Your task to perform on an android device: Add beats solo 3 to the cart on amazon.com Image 0: 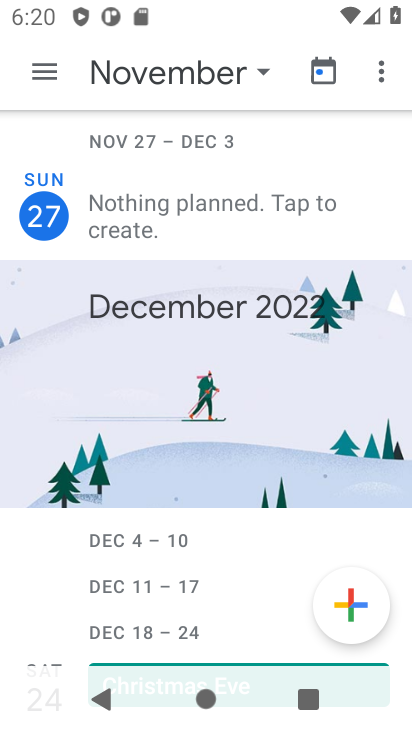
Step 0: press home button
Your task to perform on an android device: Add beats solo 3 to the cart on amazon.com Image 1: 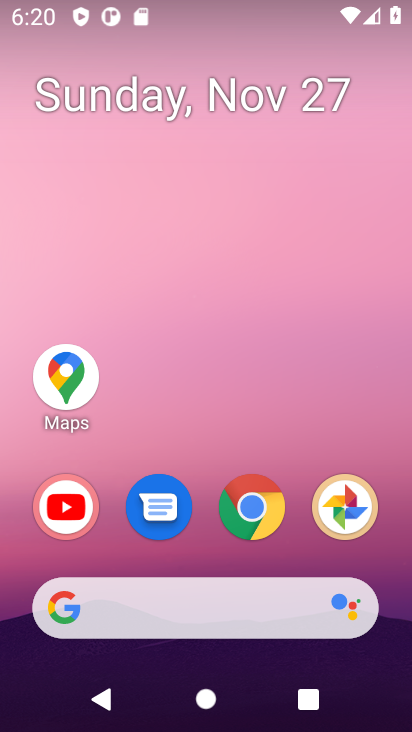
Step 1: click (250, 499)
Your task to perform on an android device: Add beats solo 3 to the cart on amazon.com Image 2: 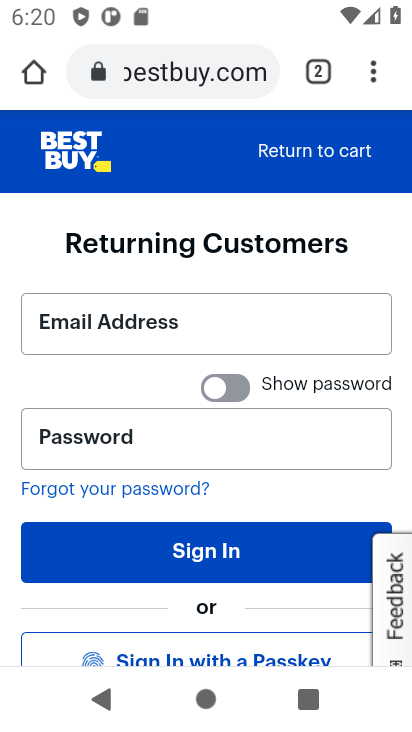
Step 2: click (182, 70)
Your task to perform on an android device: Add beats solo 3 to the cart on amazon.com Image 3: 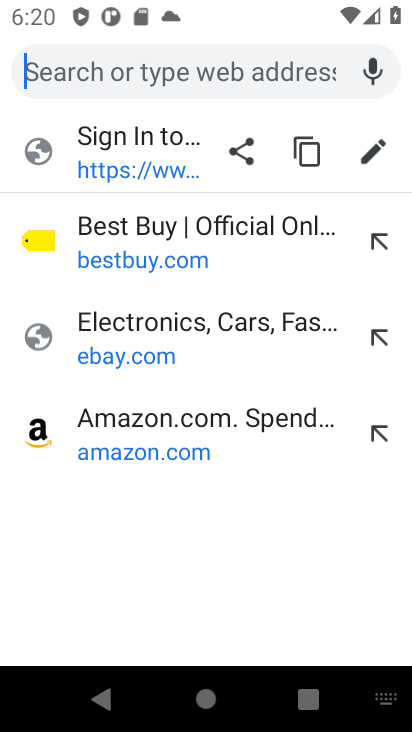
Step 3: type "amazon.com"
Your task to perform on an android device: Add beats solo 3 to the cart on amazon.com Image 4: 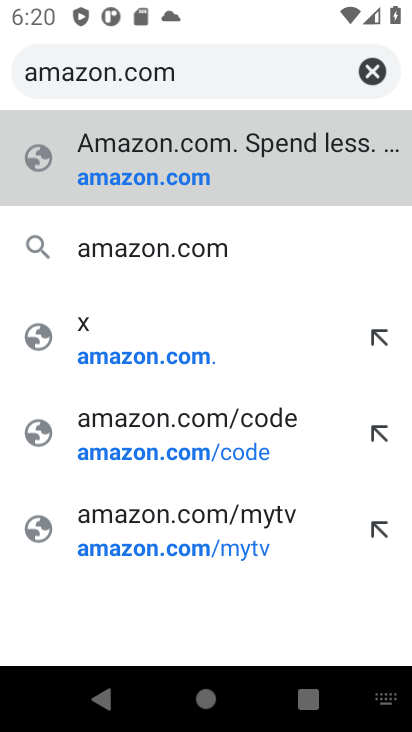
Step 4: click (214, 150)
Your task to perform on an android device: Add beats solo 3 to the cart on amazon.com Image 5: 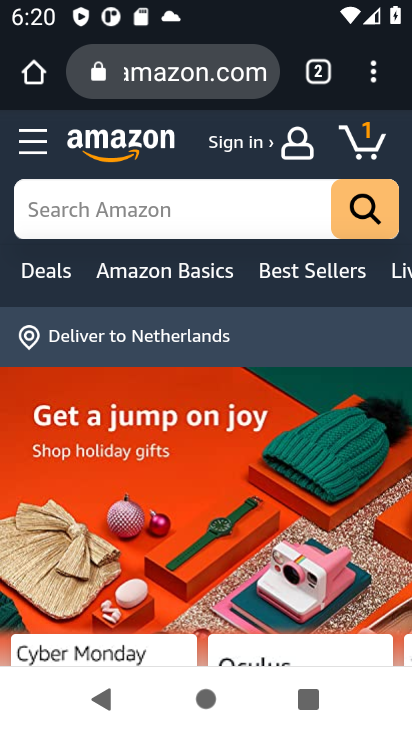
Step 5: click (176, 197)
Your task to perform on an android device: Add beats solo 3 to the cart on amazon.com Image 6: 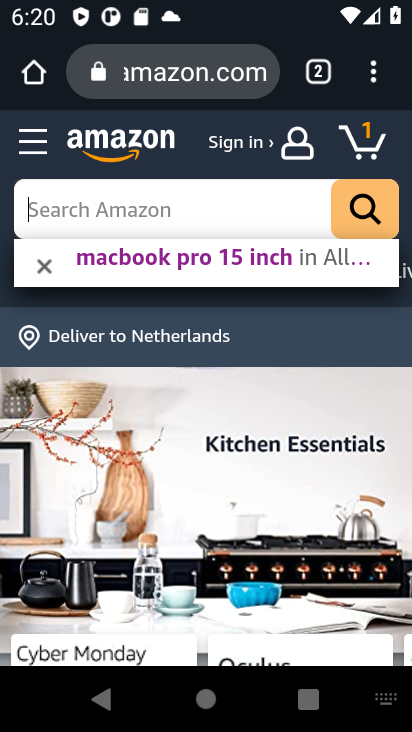
Step 6: type "beats solo 3"
Your task to perform on an android device: Add beats solo 3 to the cart on amazon.com Image 7: 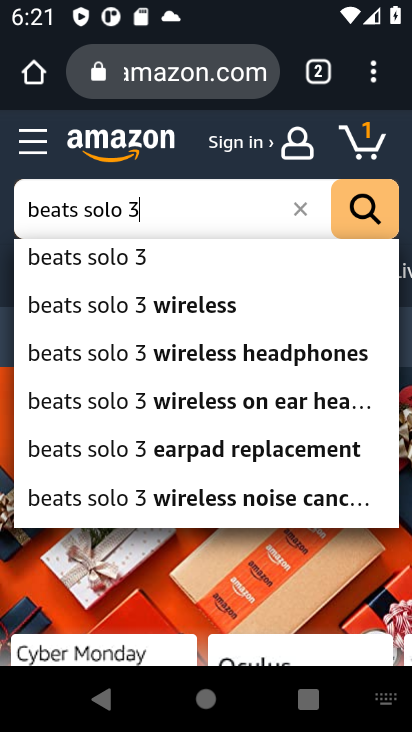
Step 7: click (366, 216)
Your task to perform on an android device: Add beats solo 3 to the cart on amazon.com Image 8: 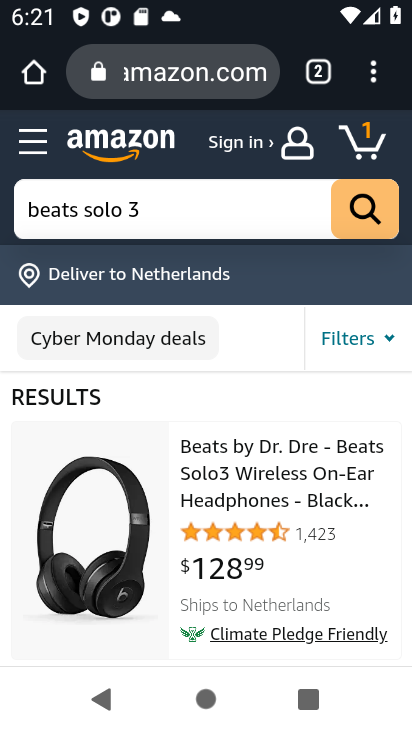
Step 8: click (315, 483)
Your task to perform on an android device: Add beats solo 3 to the cart on amazon.com Image 9: 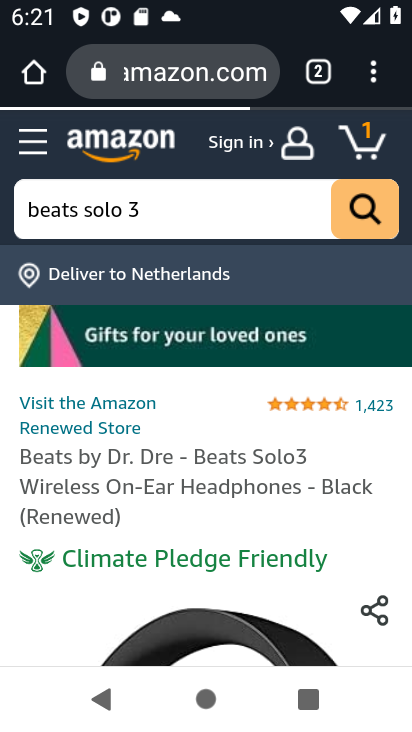
Step 9: drag from (268, 583) to (245, 243)
Your task to perform on an android device: Add beats solo 3 to the cart on amazon.com Image 10: 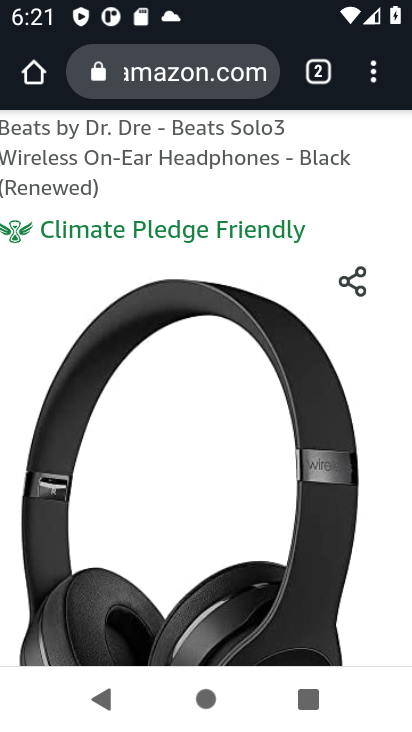
Step 10: drag from (195, 554) to (190, 153)
Your task to perform on an android device: Add beats solo 3 to the cart on amazon.com Image 11: 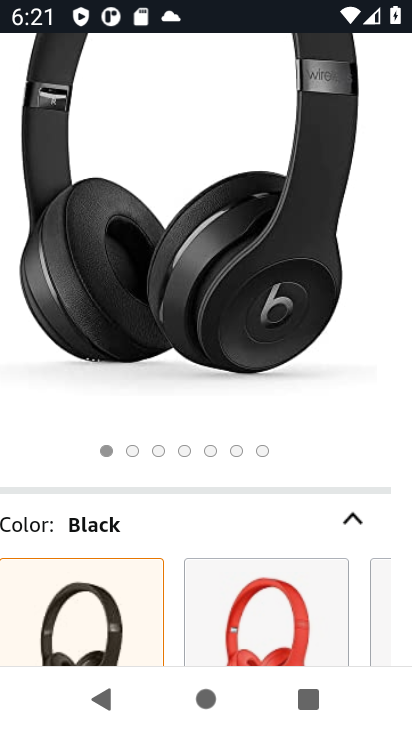
Step 11: drag from (185, 476) to (198, 76)
Your task to perform on an android device: Add beats solo 3 to the cart on amazon.com Image 12: 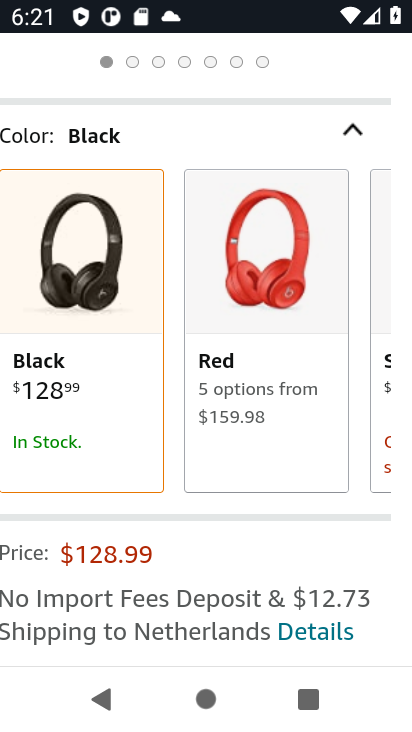
Step 12: drag from (188, 445) to (208, 160)
Your task to perform on an android device: Add beats solo 3 to the cart on amazon.com Image 13: 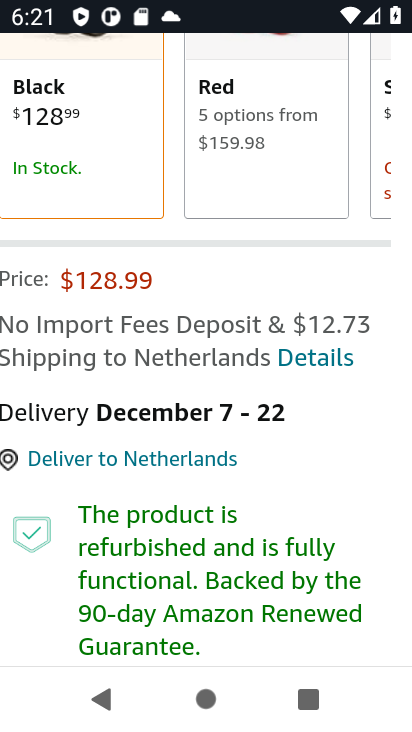
Step 13: drag from (208, 557) to (261, 137)
Your task to perform on an android device: Add beats solo 3 to the cart on amazon.com Image 14: 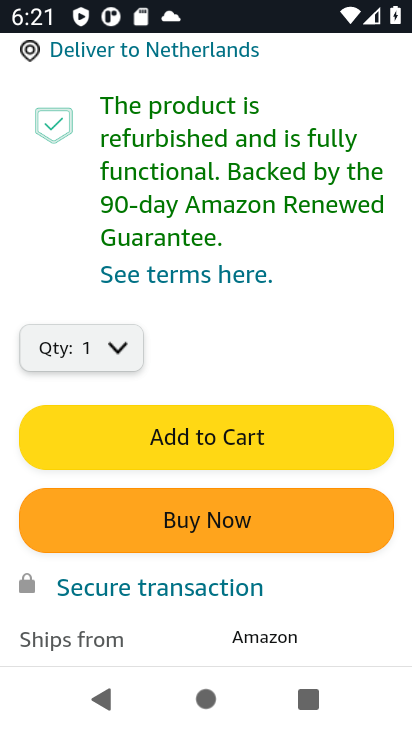
Step 14: click (217, 439)
Your task to perform on an android device: Add beats solo 3 to the cart on amazon.com Image 15: 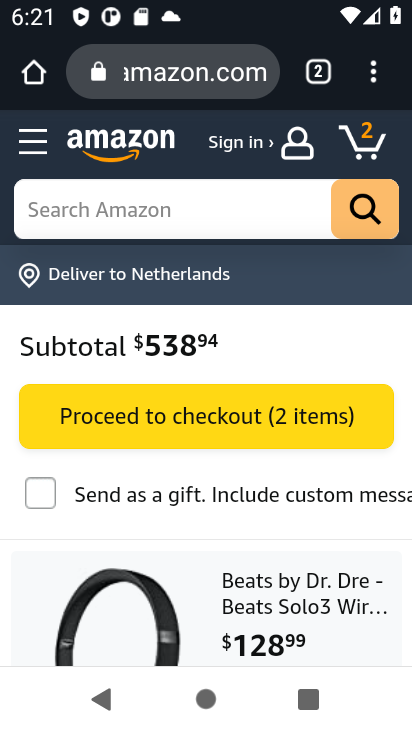
Step 15: task complete